Your task to perform on an android device: star an email in the gmail app Image 0: 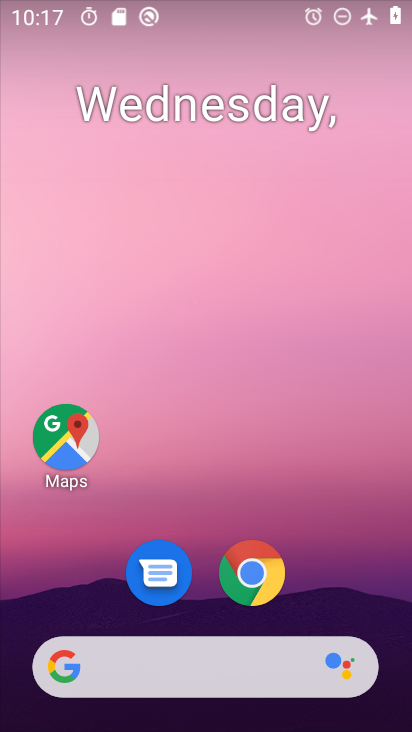
Step 0: drag from (336, 604) to (357, 426)
Your task to perform on an android device: star an email in the gmail app Image 1: 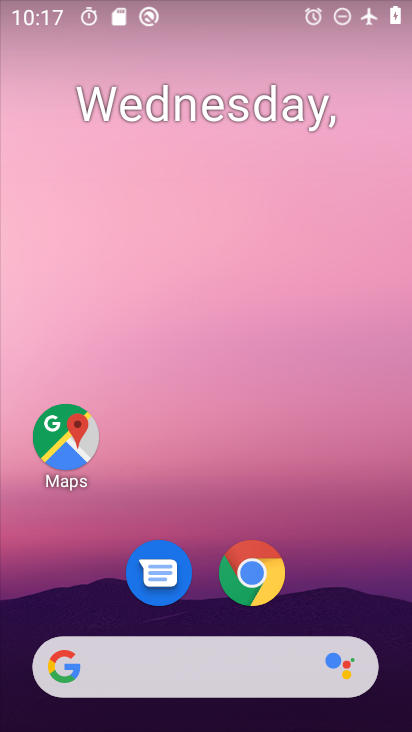
Step 1: drag from (243, 626) to (247, 373)
Your task to perform on an android device: star an email in the gmail app Image 2: 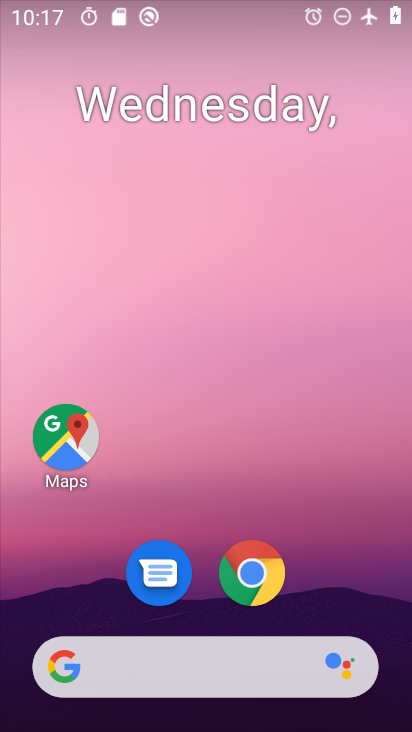
Step 2: drag from (320, 519) to (338, 363)
Your task to perform on an android device: star an email in the gmail app Image 3: 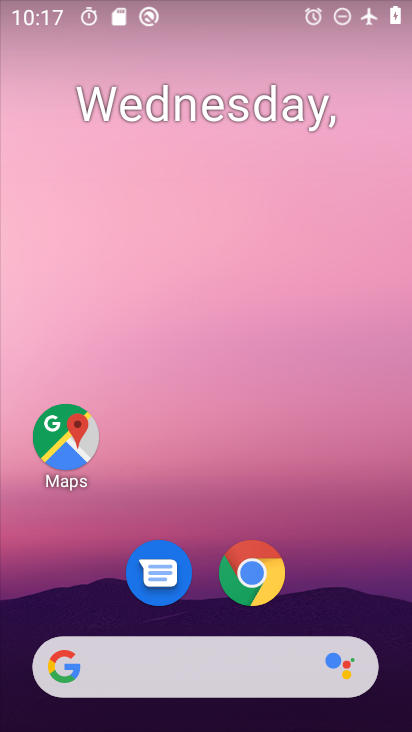
Step 3: drag from (336, 531) to (275, 162)
Your task to perform on an android device: star an email in the gmail app Image 4: 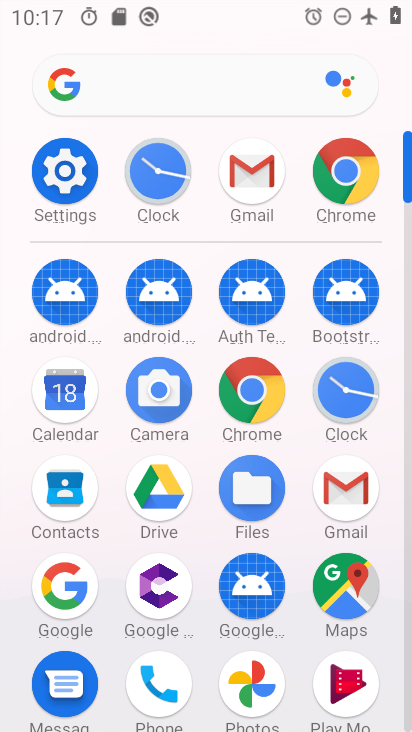
Step 4: click (261, 169)
Your task to perform on an android device: star an email in the gmail app Image 5: 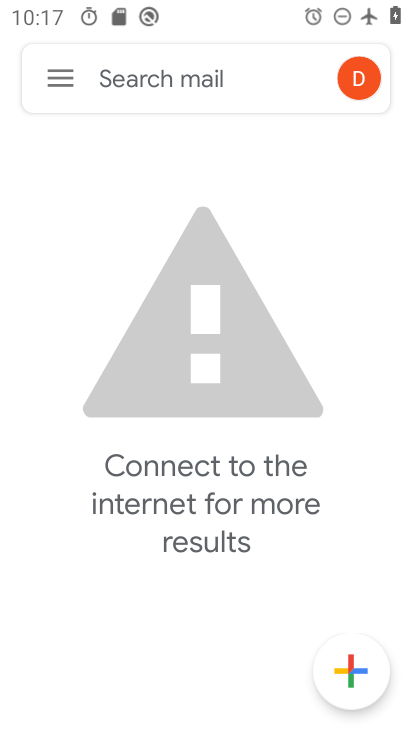
Step 5: click (59, 78)
Your task to perform on an android device: star an email in the gmail app Image 6: 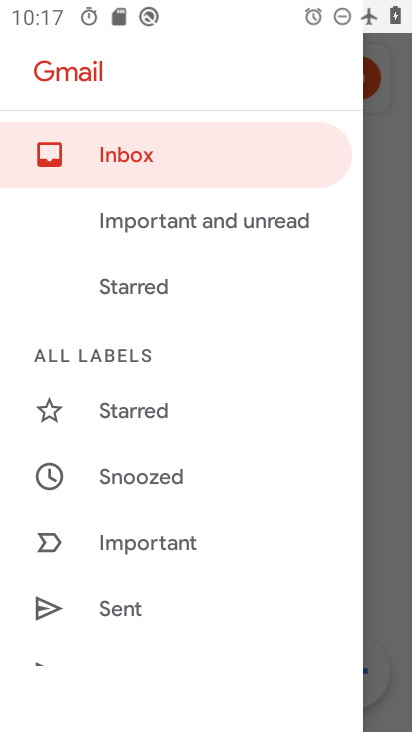
Step 6: drag from (179, 599) to (185, 527)
Your task to perform on an android device: star an email in the gmail app Image 7: 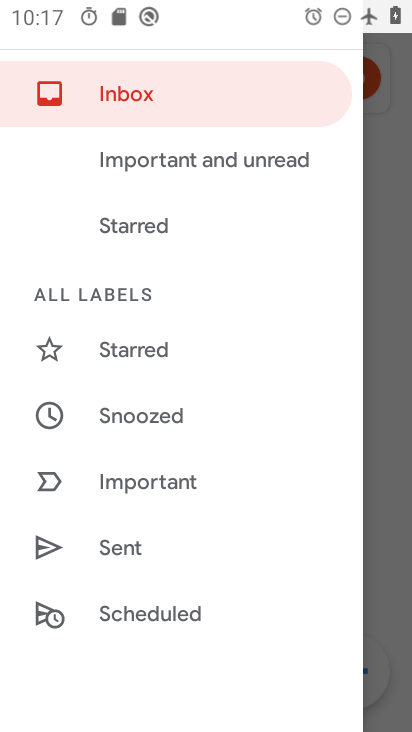
Step 7: drag from (162, 597) to (216, 367)
Your task to perform on an android device: star an email in the gmail app Image 8: 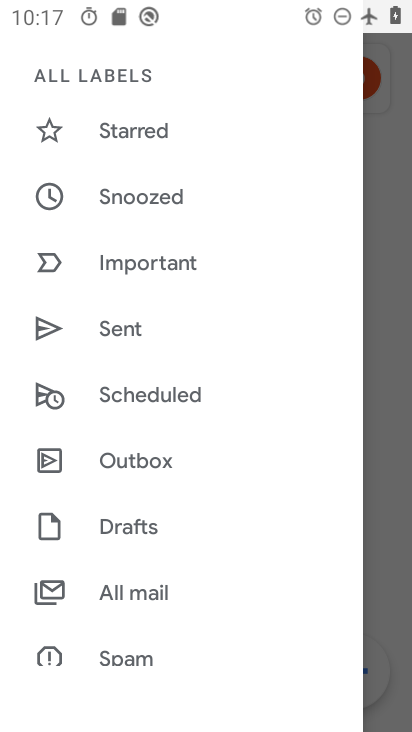
Step 8: click (200, 602)
Your task to perform on an android device: star an email in the gmail app Image 9: 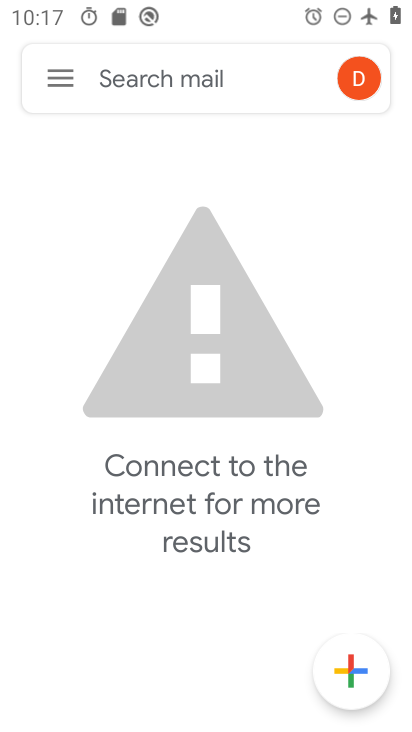
Step 9: task complete